Your task to perform on an android device: Search for vegetarian restaurants on Maps Image 0: 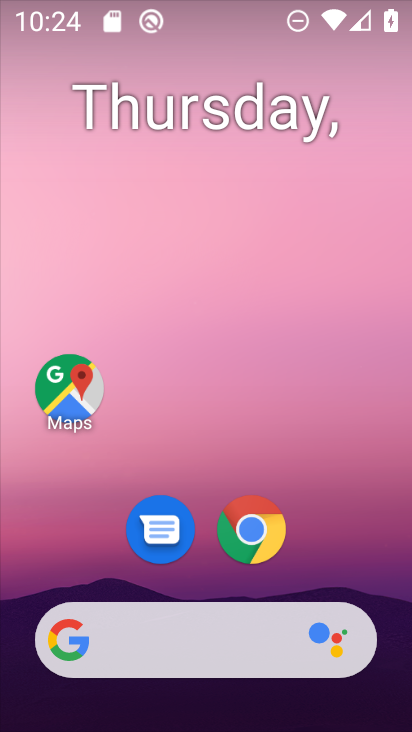
Step 0: click (55, 399)
Your task to perform on an android device: Search for vegetarian restaurants on Maps Image 1: 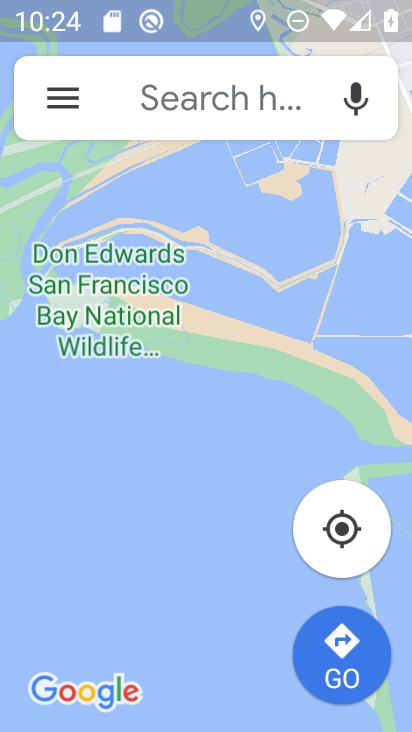
Step 1: click (210, 90)
Your task to perform on an android device: Search for vegetarian restaurants on Maps Image 2: 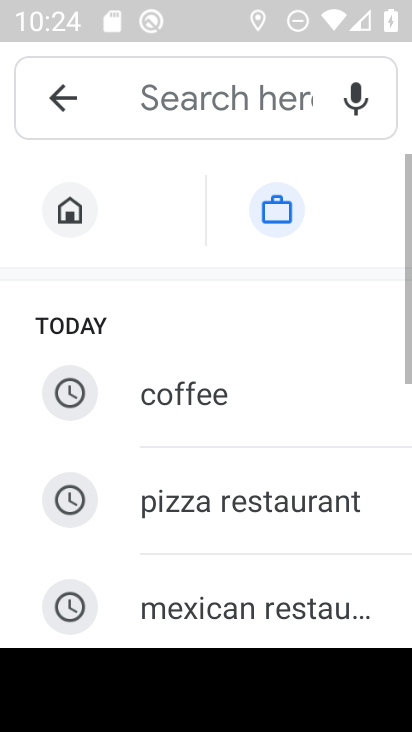
Step 2: drag from (345, 593) to (315, 215)
Your task to perform on an android device: Search for vegetarian restaurants on Maps Image 3: 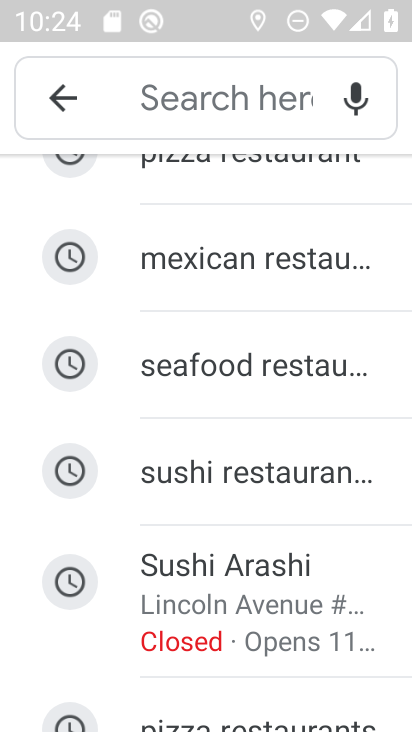
Step 3: drag from (273, 567) to (254, 173)
Your task to perform on an android device: Search for vegetarian restaurants on Maps Image 4: 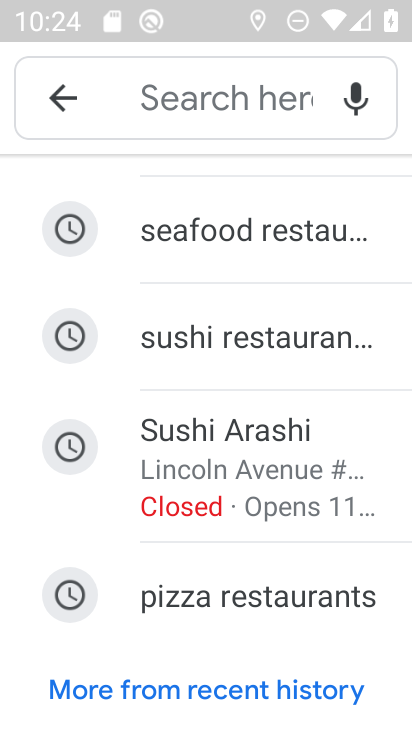
Step 4: click (233, 113)
Your task to perform on an android device: Search for vegetarian restaurants on Maps Image 5: 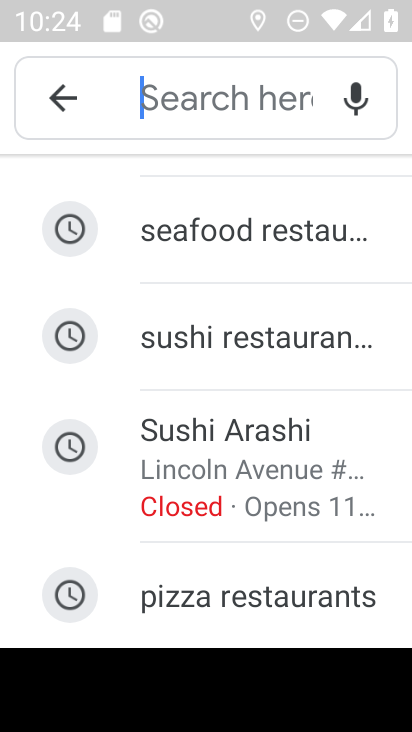
Step 5: type "vegetarian rest"
Your task to perform on an android device: Search for vegetarian restaurants on Maps Image 6: 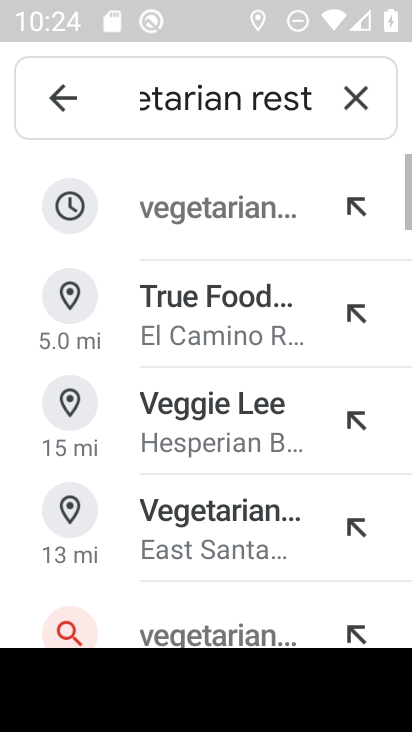
Step 6: click (268, 214)
Your task to perform on an android device: Search for vegetarian restaurants on Maps Image 7: 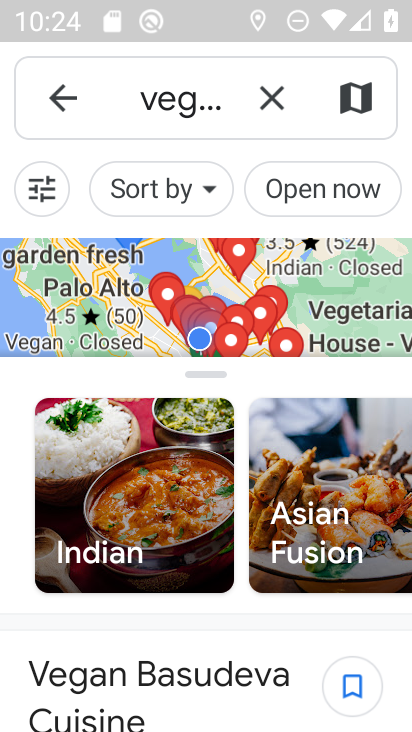
Step 7: task complete